Your task to perform on an android device: Search for pizza restaurants on Maps Image 0: 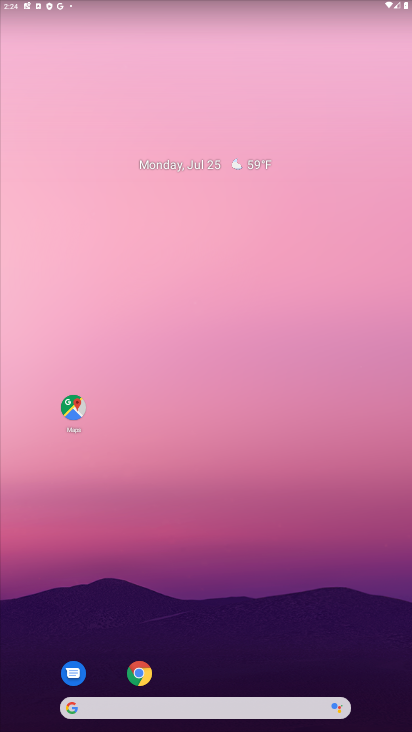
Step 0: drag from (215, 676) to (193, 4)
Your task to perform on an android device: Search for pizza restaurants on Maps Image 1: 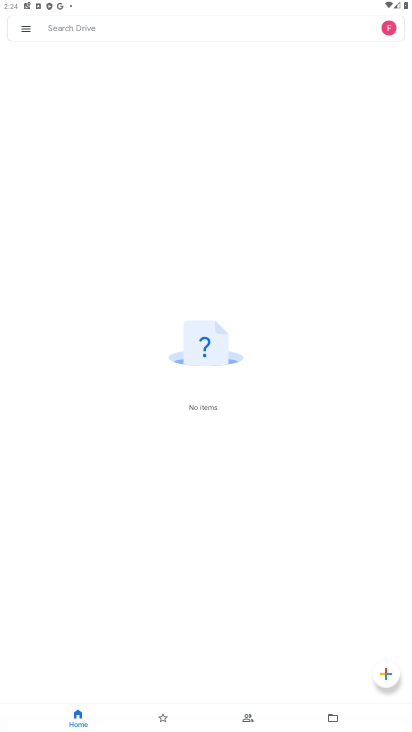
Step 1: press home button
Your task to perform on an android device: Search for pizza restaurants on Maps Image 2: 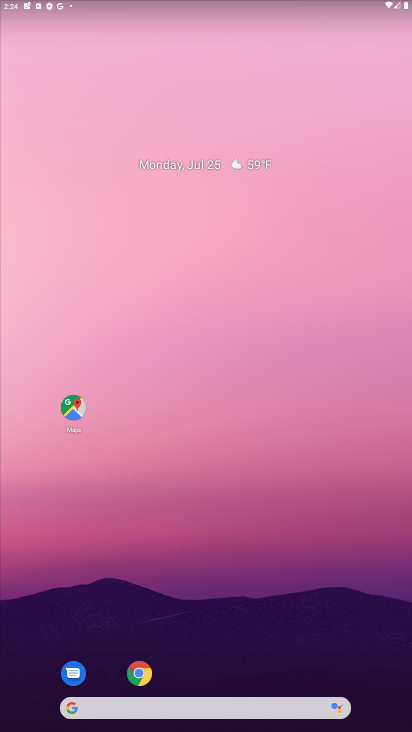
Step 2: click (67, 408)
Your task to perform on an android device: Search for pizza restaurants on Maps Image 3: 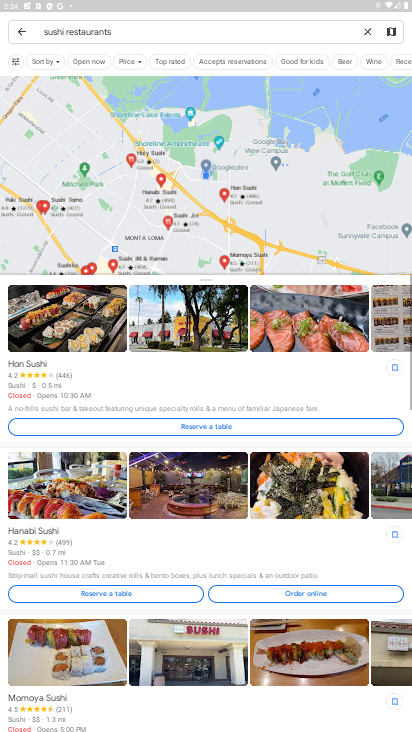
Step 3: click (368, 36)
Your task to perform on an android device: Search for pizza restaurants on Maps Image 4: 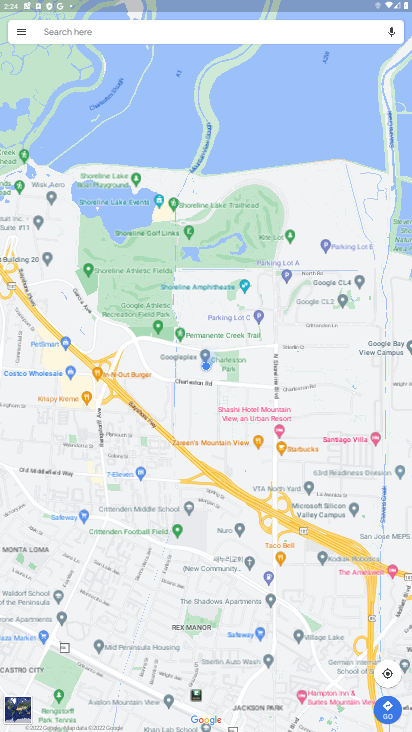
Step 4: click (283, 42)
Your task to perform on an android device: Search for pizza restaurants on Maps Image 5: 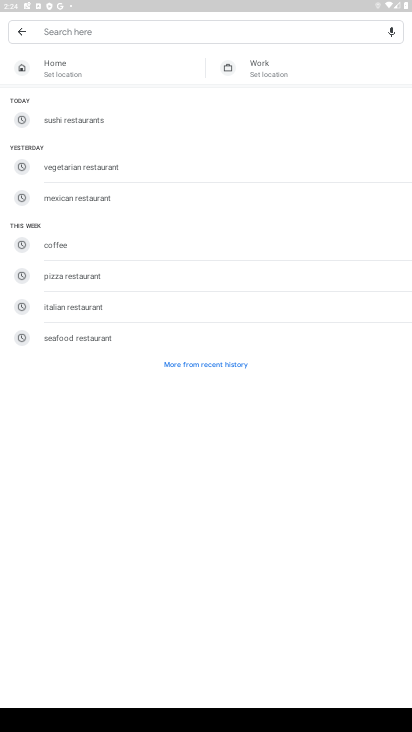
Step 5: click (80, 278)
Your task to perform on an android device: Search for pizza restaurants on Maps Image 6: 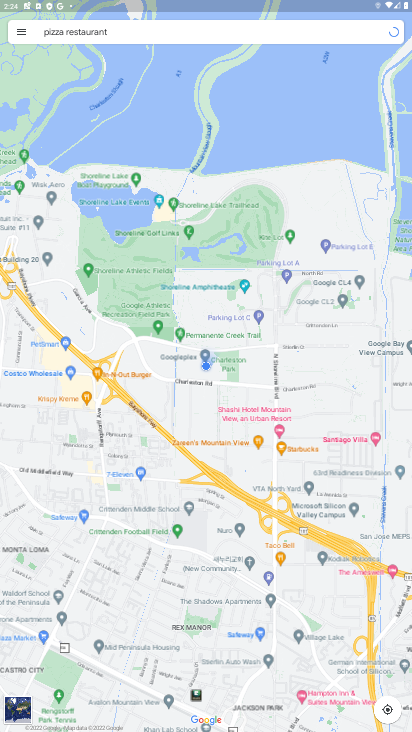
Step 6: task complete